Your task to perform on an android device: Open Chrome and go to settings Image 0: 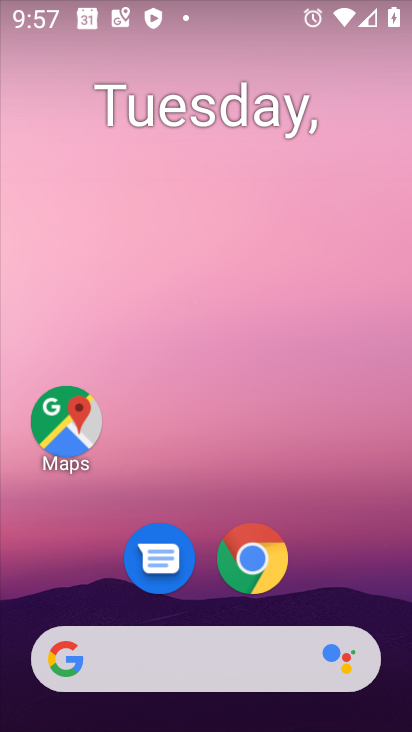
Step 0: drag from (387, 611) to (226, 16)
Your task to perform on an android device: Open Chrome and go to settings Image 1: 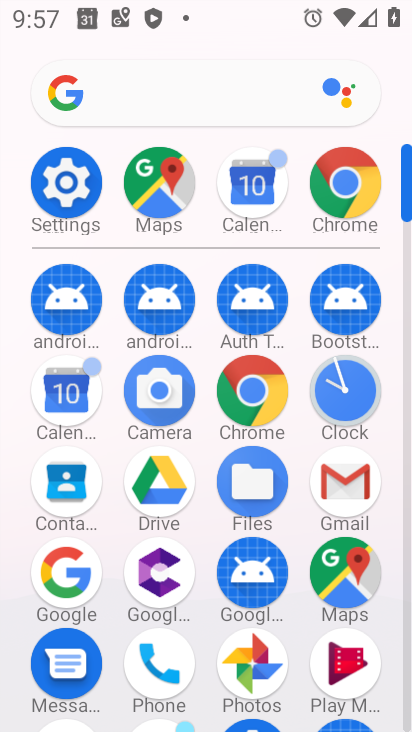
Step 1: click (336, 194)
Your task to perform on an android device: Open Chrome and go to settings Image 2: 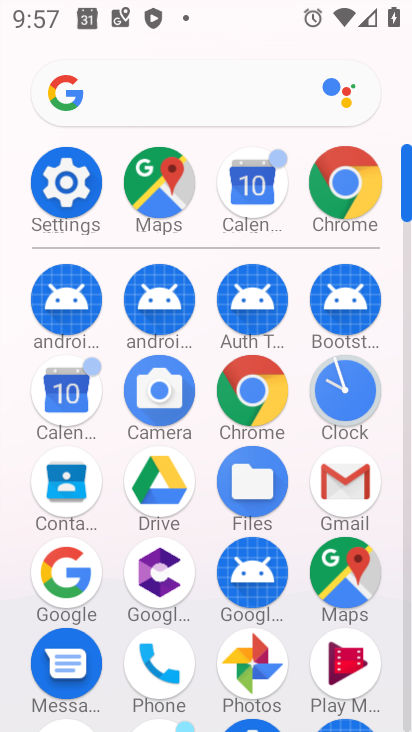
Step 2: click (336, 194)
Your task to perform on an android device: Open Chrome and go to settings Image 3: 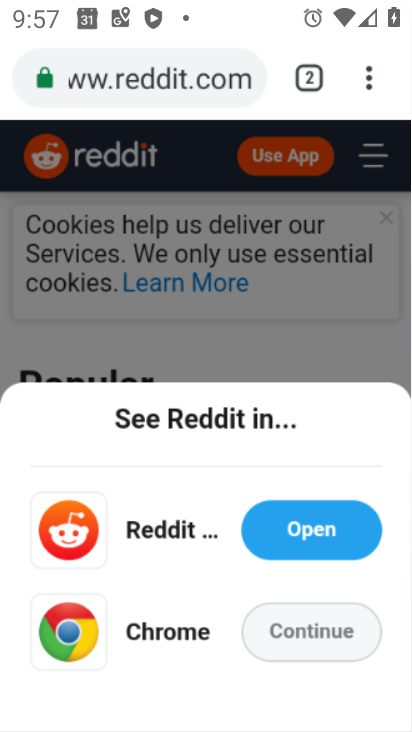
Step 3: click (329, 183)
Your task to perform on an android device: Open Chrome and go to settings Image 4: 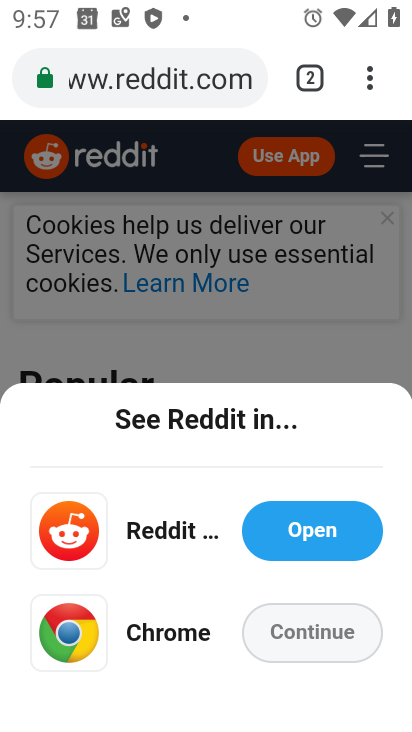
Step 4: drag from (366, 79) to (99, 623)
Your task to perform on an android device: Open Chrome and go to settings Image 5: 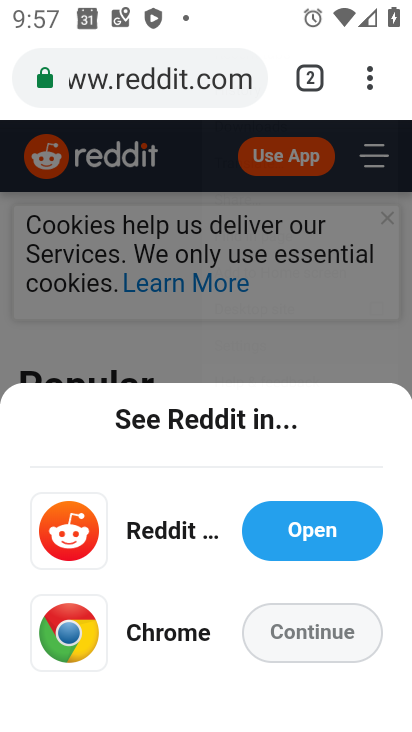
Step 5: click (98, 608)
Your task to perform on an android device: Open Chrome and go to settings Image 6: 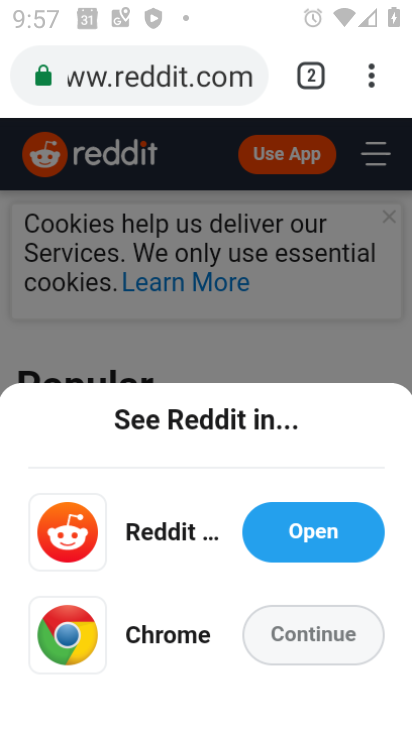
Step 6: click (99, 605)
Your task to perform on an android device: Open Chrome and go to settings Image 7: 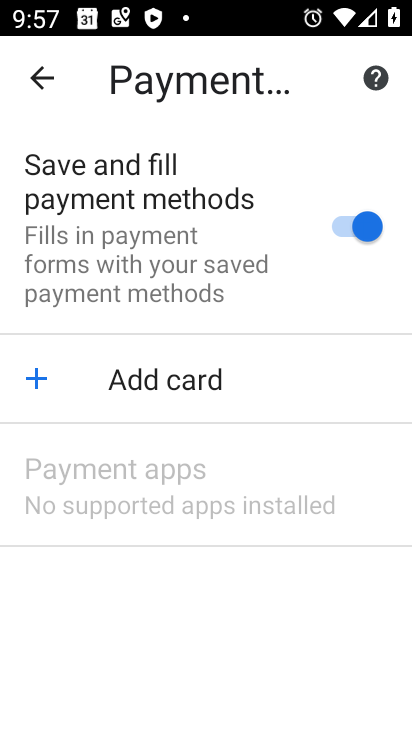
Step 7: click (45, 77)
Your task to perform on an android device: Open Chrome and go to settings Image 8: 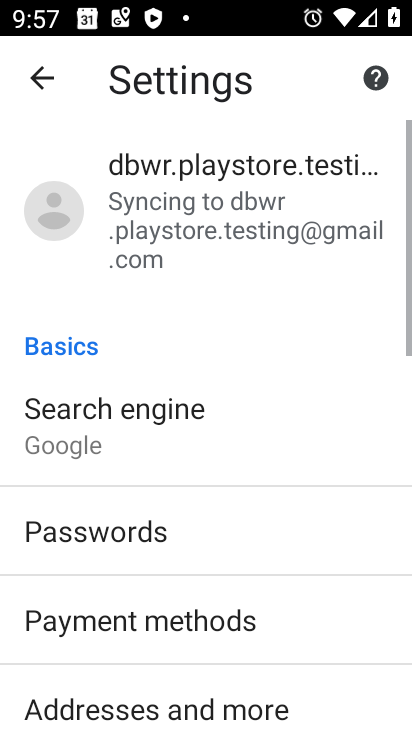
Step 8: task complete